Your task to perform on an android device: turn off data saver in the chrome app Image 0: 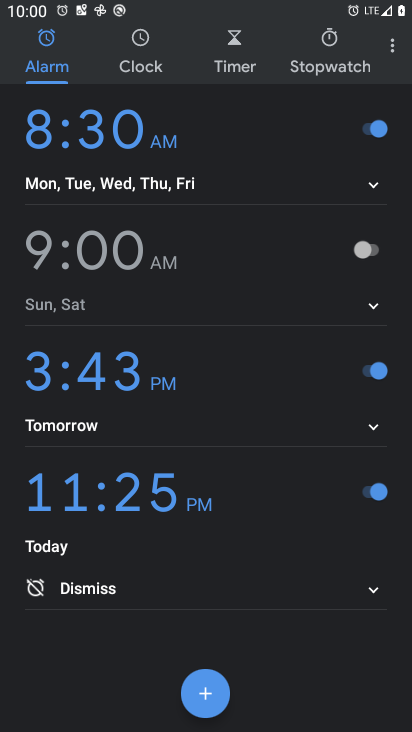
Step 0: press home button
Your task to perform on an android device: turn off data saver in the chrome app Image 1: 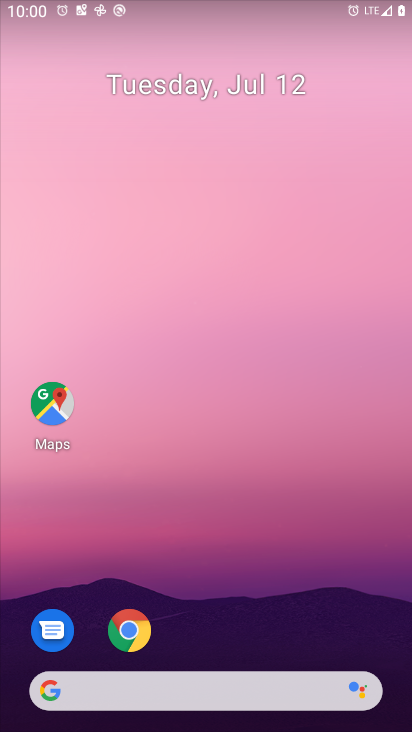
Step 1: click (134, 640)
Your task to perform on an android device: turn off data saver in the chrome app Image 2: 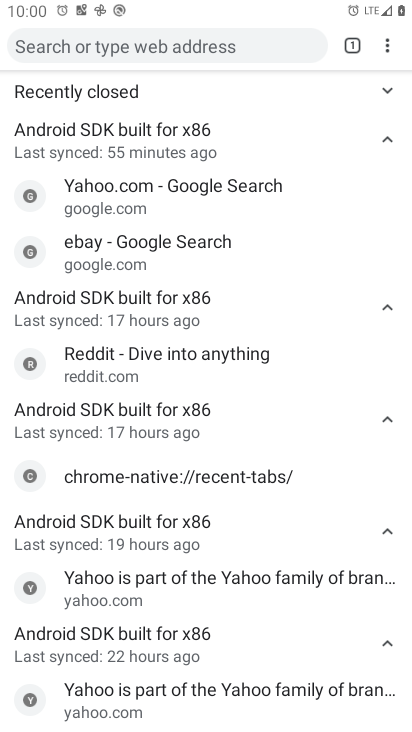
Step 2: drag from (381, 39) to (228, 379)
Your task to perform on an android device: turn off data saver in the chrome app Image 3: 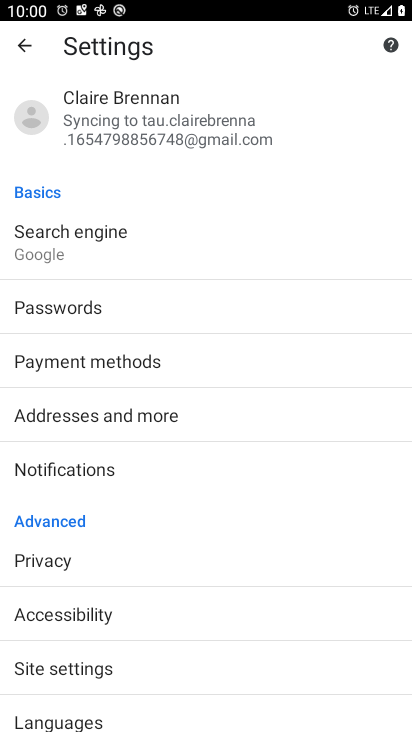
Step 3: drag from (144, 507) to (178, 34)
Your task to perform on an android device: turn off data saver in the chrome app Image 4: 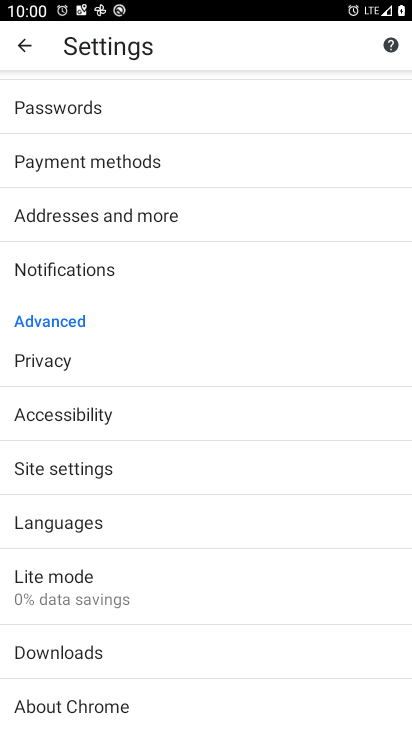
Step 4: click (82, 570)
Your task to perform on an android device: turn off data saver in the chrome app Image 5: 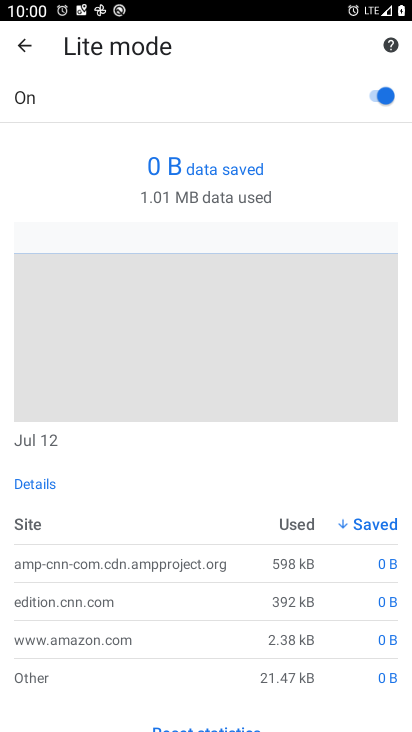
Step 5: click (377, 96)
Your task to perform on an android device: turn off data saver in the chrome app Image 6: 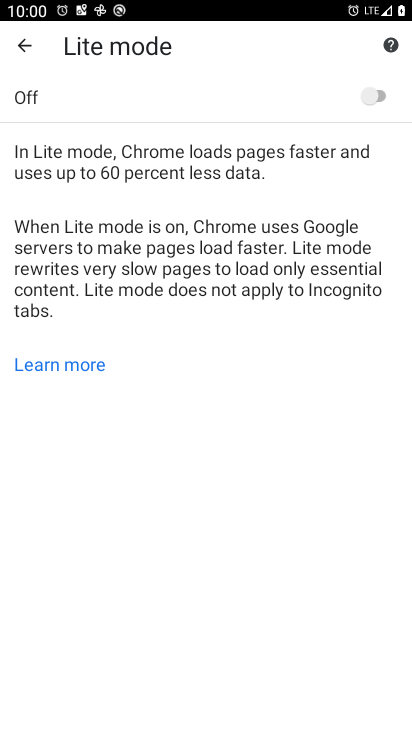
Step 6: task complete